Your task to perform on an android device: Open Wikipedia Image 0: 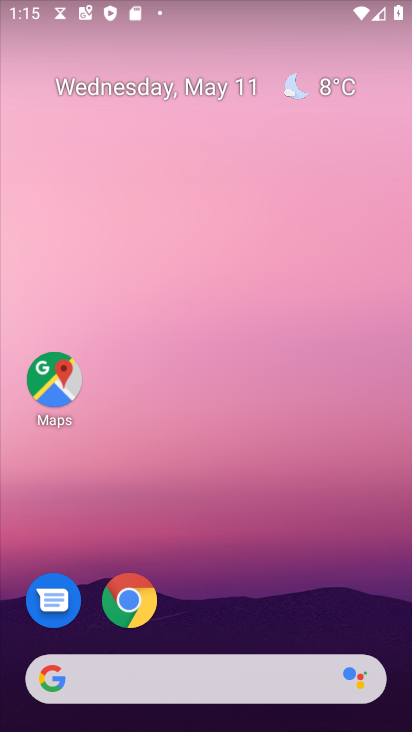
Step 0: click (131, 602)
Your task to perform on an android device: Open Wikipedia Image 1: 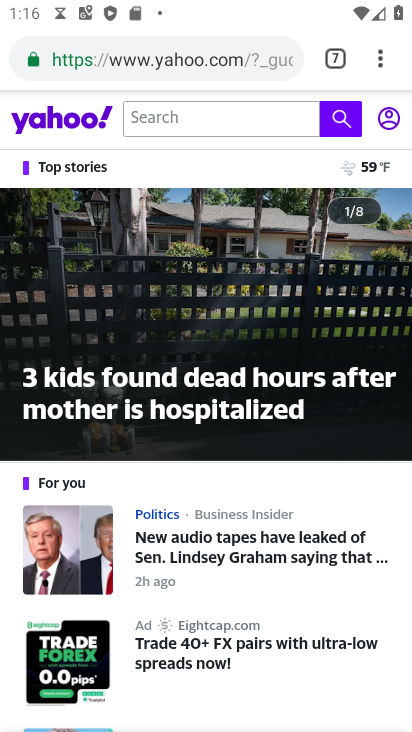
Step 1: click (330, 53)
Your task to perform on an android device: Open Wikipedia Image 2: 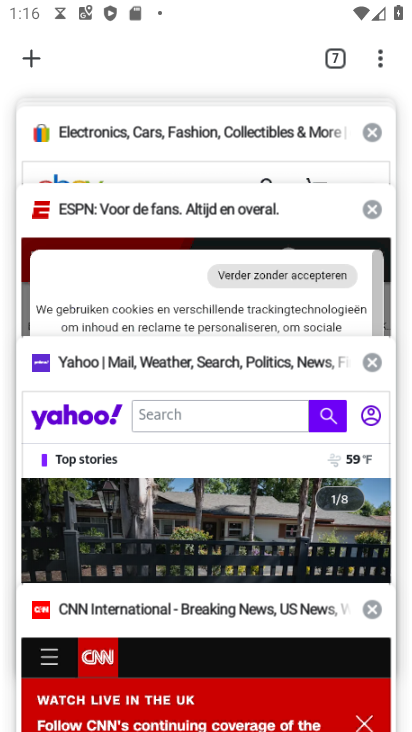
Step 2: drag from (177, 156) to (178, 726)
Your task to perform on an android device: Open Wikipedia Image 3: 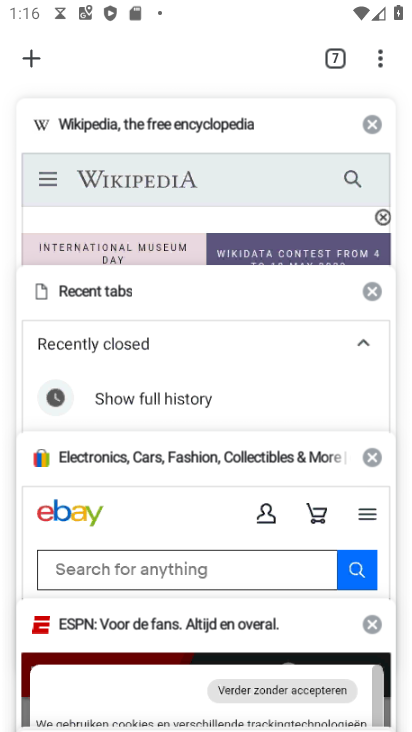
Step 3: click (158, 123)
Your task to perform on an android device: Open Wikipedia Image 4: 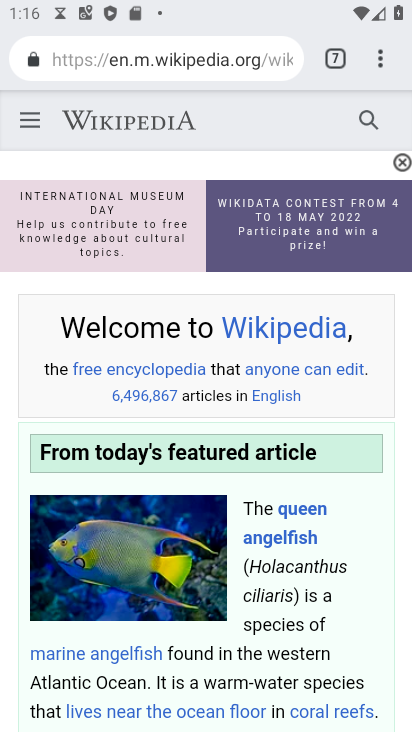
Step 4: task complete